Your task to perform on an android device: Open Android settings Image 0: 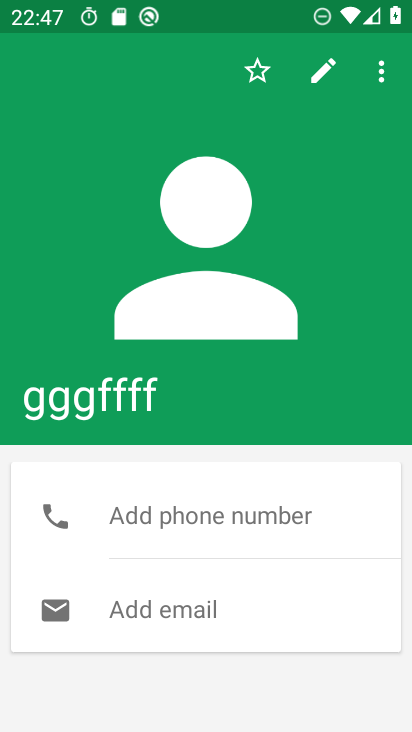
Step 0: press home button
Your task to perform on an android device: Open Android settings Image 1: 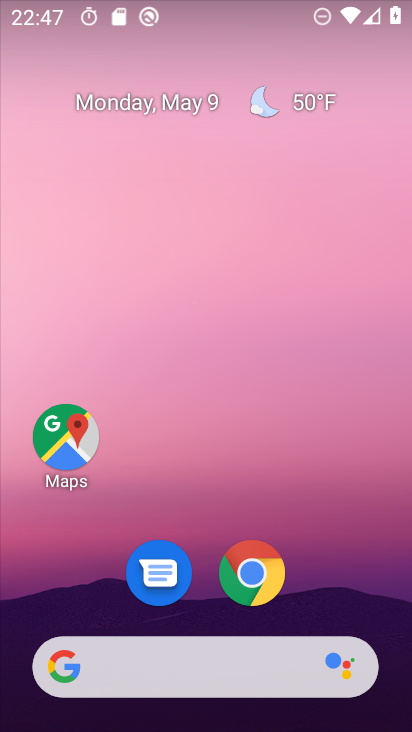
Step 1: drag from (343, 547) to (285, 87)
Your task to perform on an android device: Open Android settings Image 2: 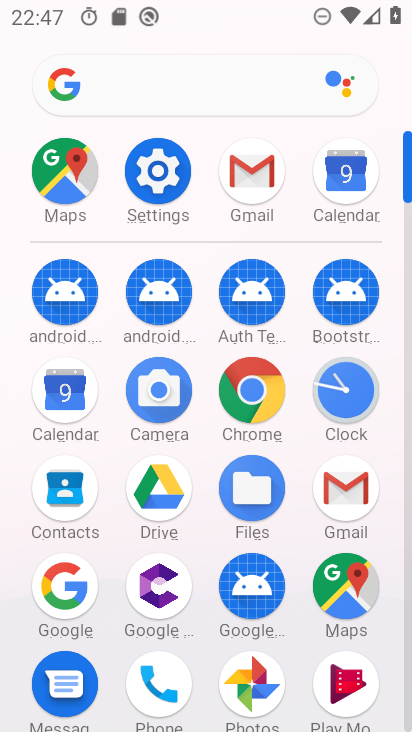
Step 2: click (155, 172)
Your task to perform on an android device: Open Android settings Image 3: 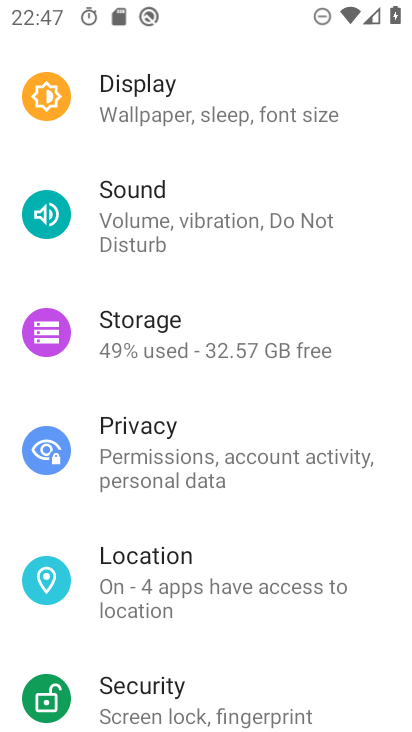
Step 3: task complete